Your task to perform on an android device: Go to Google Image 0: 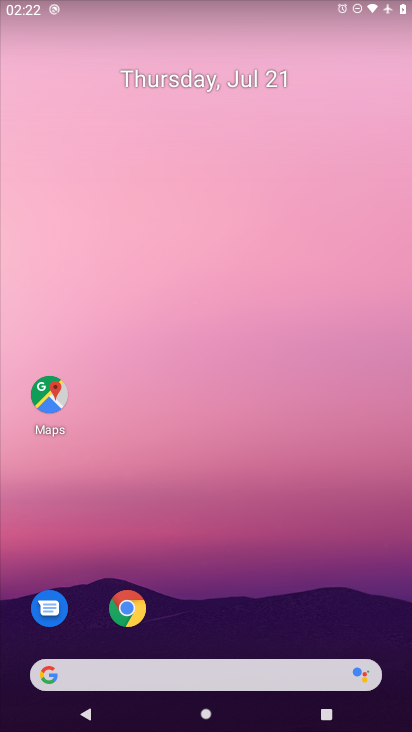
Step 0: press home button
Your task to perform on an android device: Go to Google Image 1: 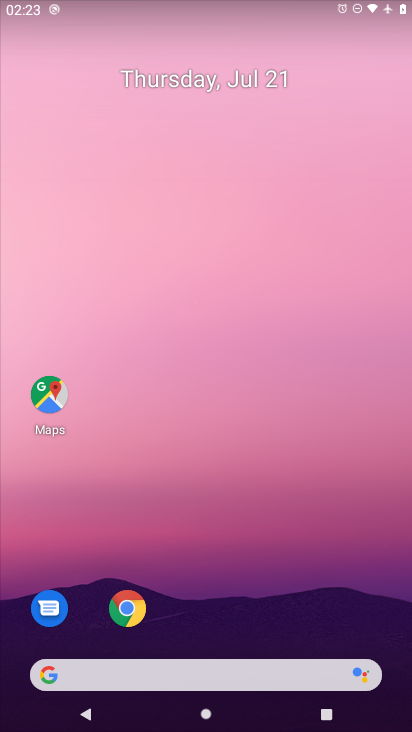
Step 1: click (42, 678)
Your task to perform on an android device: Go to Google Image 2: 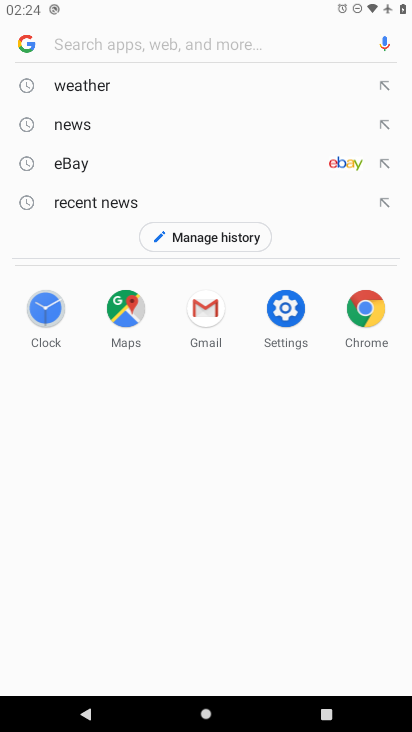
Step 2: click (136, 35)
Your task to perform on an android device: Go to Google Image 3: 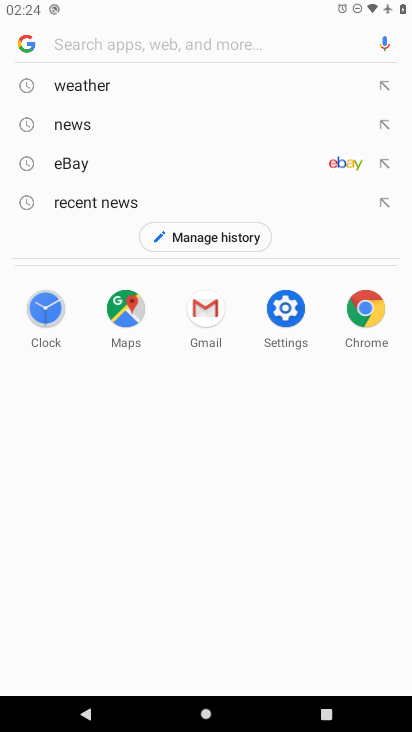
Step 3: click (139, 53)
Your task to perform on an android device: Go to Google Image 4: 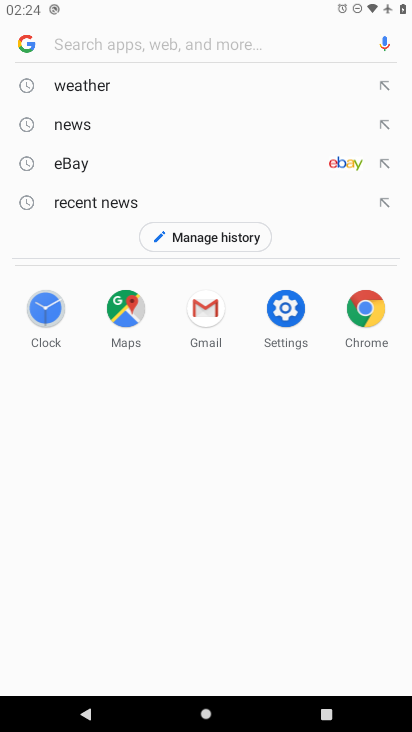
Step 4: click (141, 53)
Your task to perform on an android device: Go to Google Image 5: 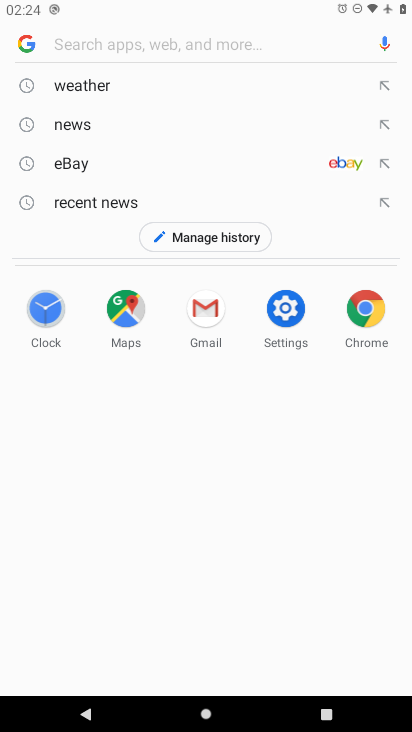
Step 5: task complete